Your task to perform on an android device: allow notifications from all sites in the chrome app Image 0: 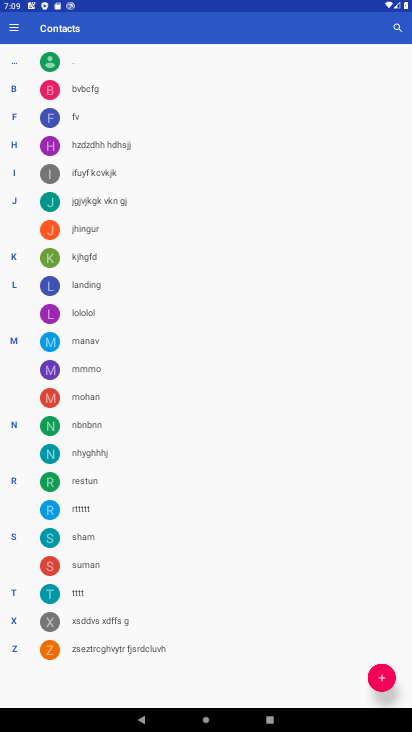
Step 0: press home button
Your task to perform on an android device: allow notifications from all sites in the chrome app Image 1: 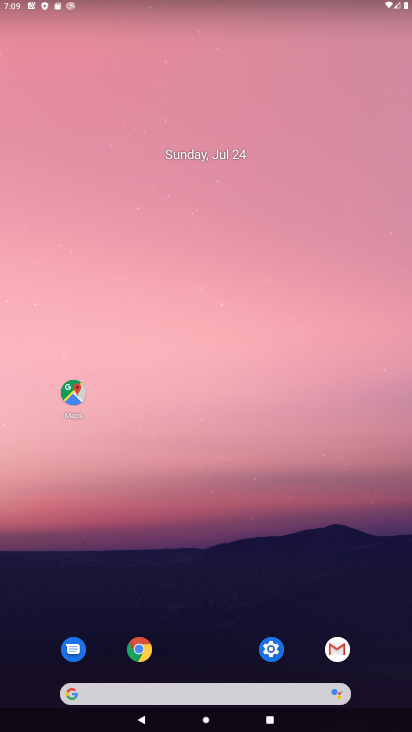
Step 1: click (139, 647)
Your task to perform on an android device: allow notifications from all sites in the chrome app Image 2: 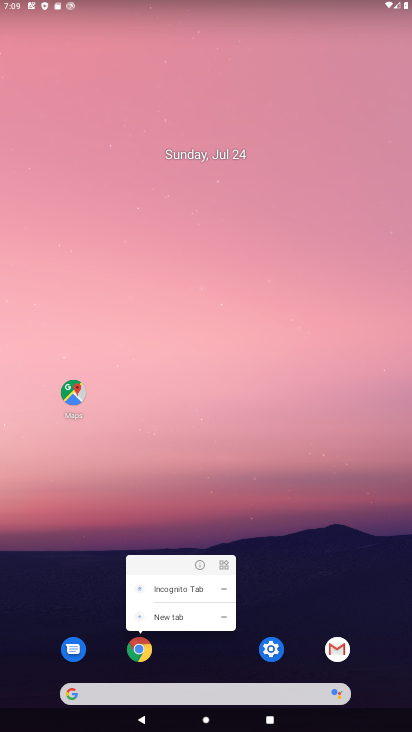
Step 2: click (149, 652)
Your task to perform on an android device: allow notifications from all sites in the chrome app Image 3: 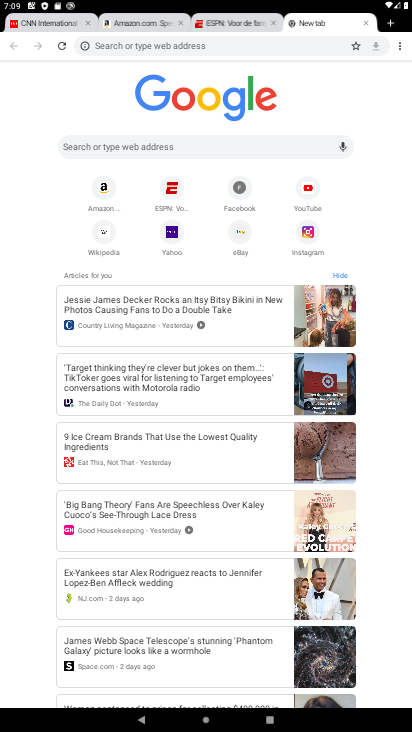
Step 3: click (397, 49)
Your task to perform on an android device: allow notifications from all sites in the chrome app Image 4: 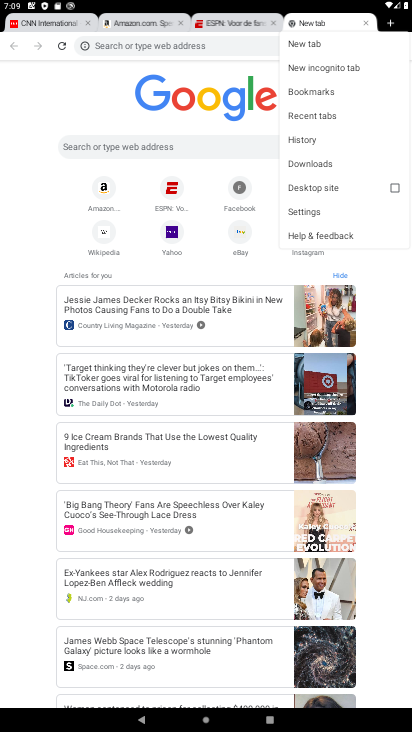
Step 4: click (310, 210)
Your task to perform on an android device: allow notifications from all sites in the chrome app Image 5: 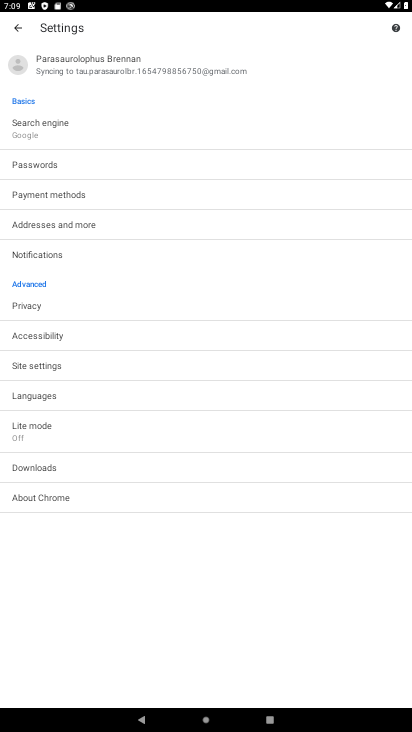
Step 5: click (62, 371)
Your task to perform on an android device: allow notifications from all sites in the chrome app Image 6: 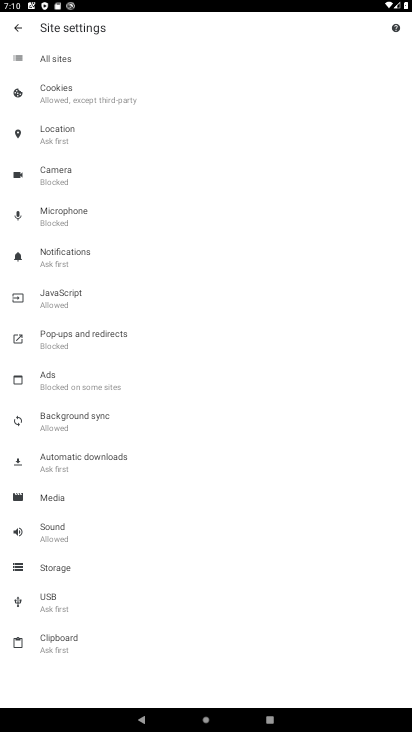
Step 6: click (43, 261)
Your task to perform on an android device: allow notifications from all sites in the chrome app Image 7: 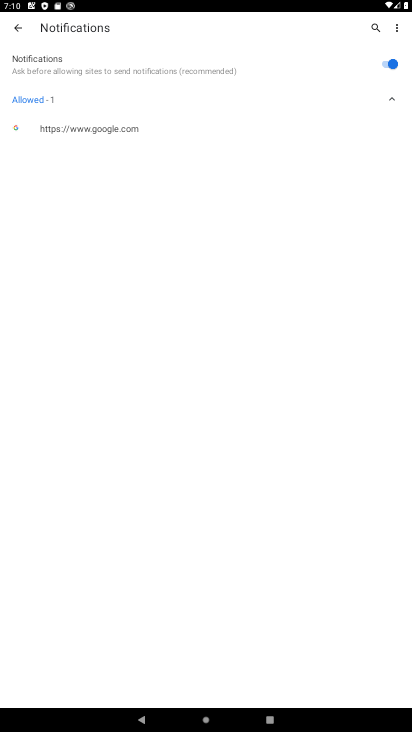
Step 7: click (392, 66)
Your task to perform on an android device: allow notifications from all sites in the chrome app Image 8: 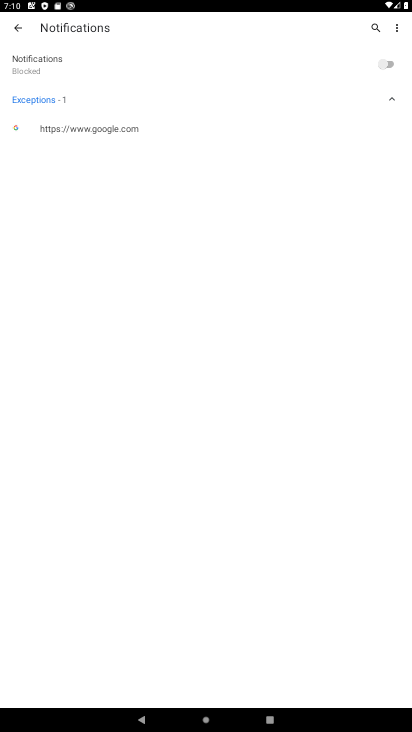
Step 8: click (392, 66)
Your task to perform on an android device: allow notifications from all sites in the chrome app Image 9: 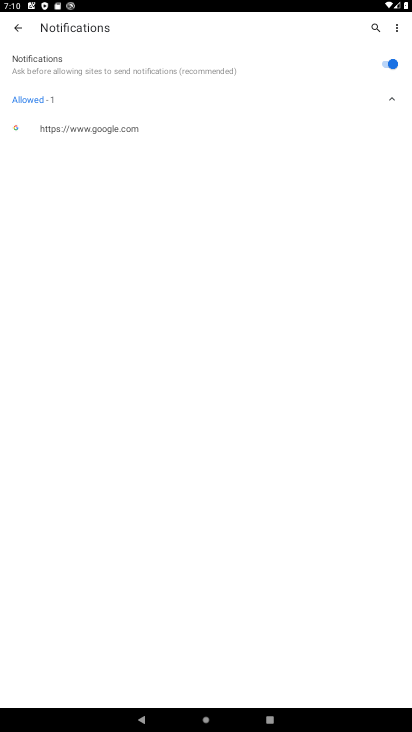
Step 9: task complete